Your task to perform on an android device: Add "asus zenbook" to the cart on costco Image 0: 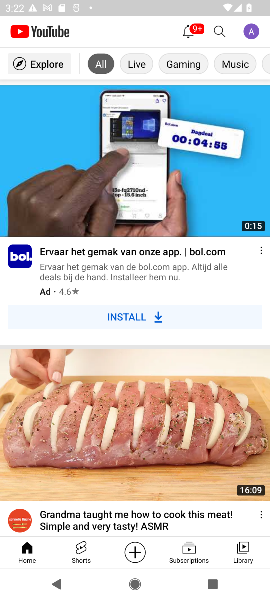
Step 0: click (219, 36)
Your task to perform on an android device: Add "asus zenbook" to the cart on costco Image 1: 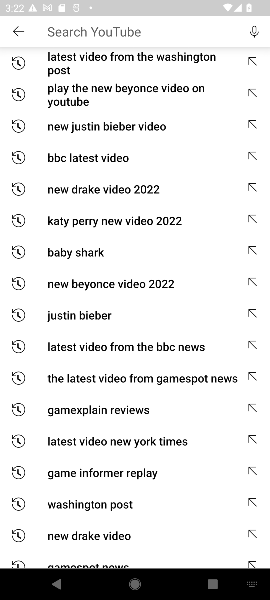
Step 1: type "costco"
Your task to perform on an android device: Add "asus zenbook" to the cart on costco Image 2: 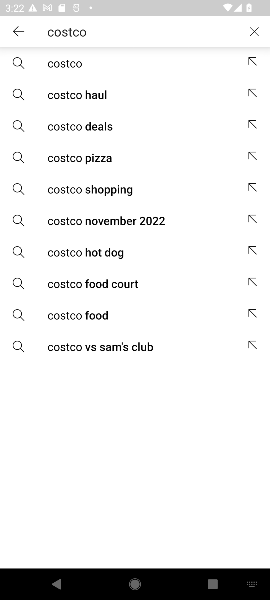
Step 2: click (81, 68)
Your task to perform on an android device: Add "asus zenbook" to the cart on costco Image 3: 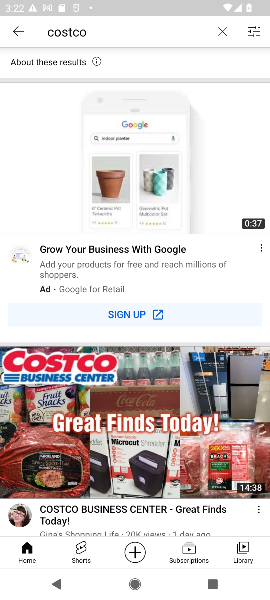
Step 3: press home button
Your task to perform on an android device: Add "asus zenbook" to the cart on costco Image 4: 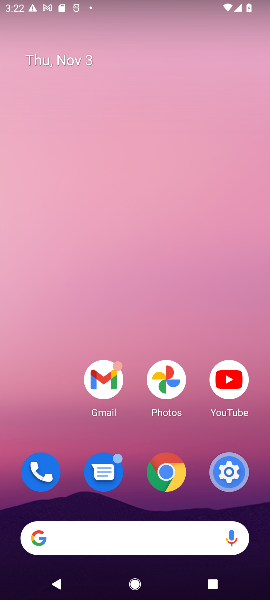
Step 4: click (148, 534)
Your task to perform on an android device: Add "asus zenbook" to the cart on costco Image 5: 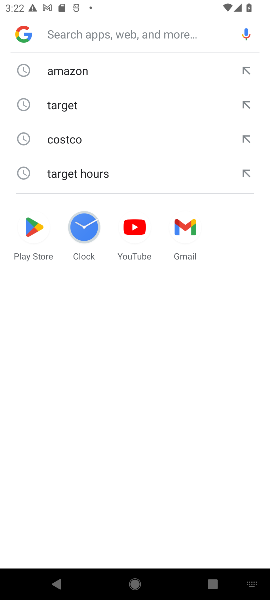
Step 5: click (64, 136)
Your task to perform on an android device: Add "asus zenbook" to the cart on costco Image 6: 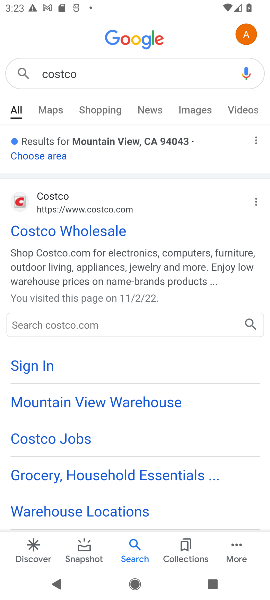
Step 6: click (58, 225)
Your task to perform on an android device: Add "asus zenbook" to the cart on costco Image 7: 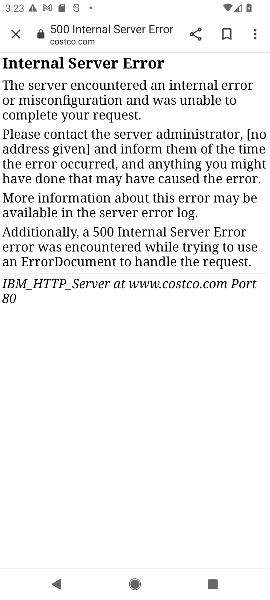
Step 7: click (11, 32)
Your task to perform on an android device: Add "asus zenbook" to the cart on costco Image 8: 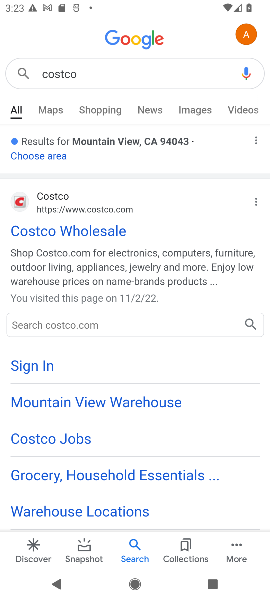
Step 8: task complete